Your task to perform on an android device: Is it going to rain today? Image 0: 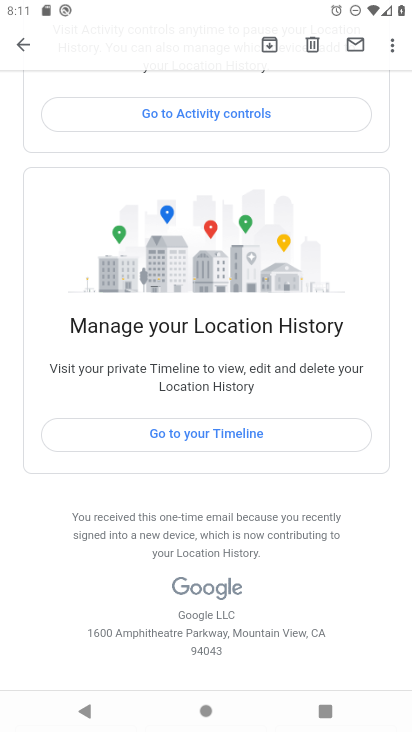
Step 0: press home button
Your task to perform on an android device: Is it going to rain today? Image 1: 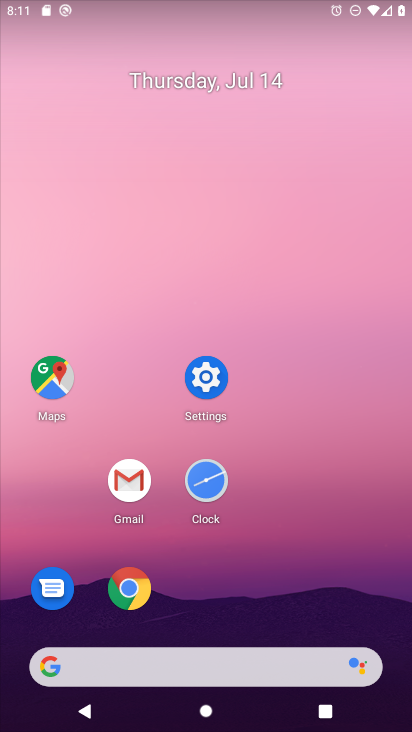
Step 1: task complete